Your task to perform on an android device: Open internet settings Image 0: 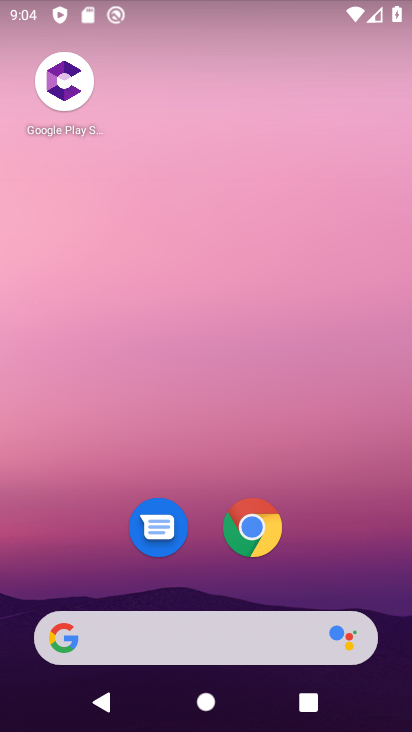
Step 0: drag from (338, 542) to (276, 9)
Your task to perform on an android device: Open internet settings Image 1: 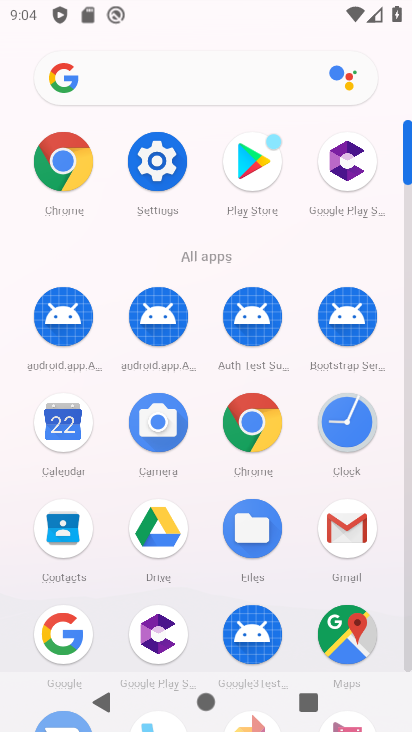
Step 1: click (155, 165)
Your task to perform on an android device: Open internet settings Image 2: 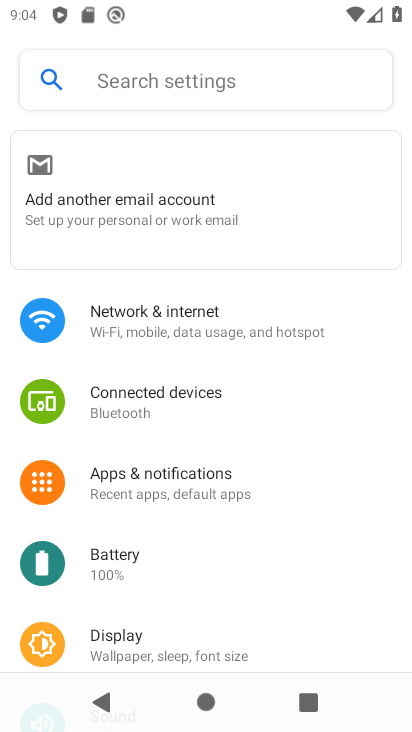
Step 2: click (154, 310)
Your task to perform on an android device: Open internet settings Image 3: 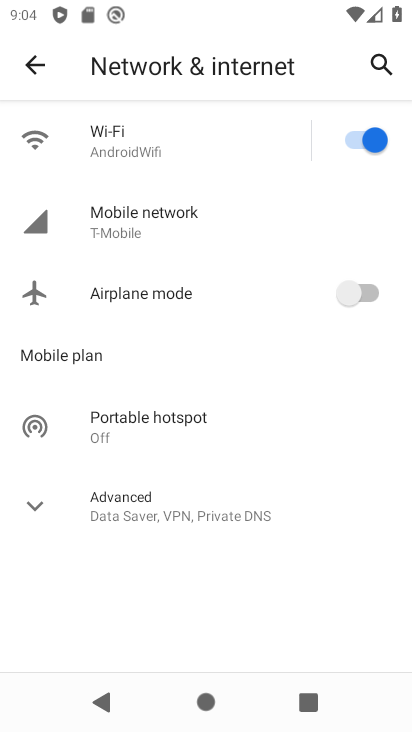
Step 3: click (131, 210)
Your task to perform on an android device: Open internet settings Image 4: 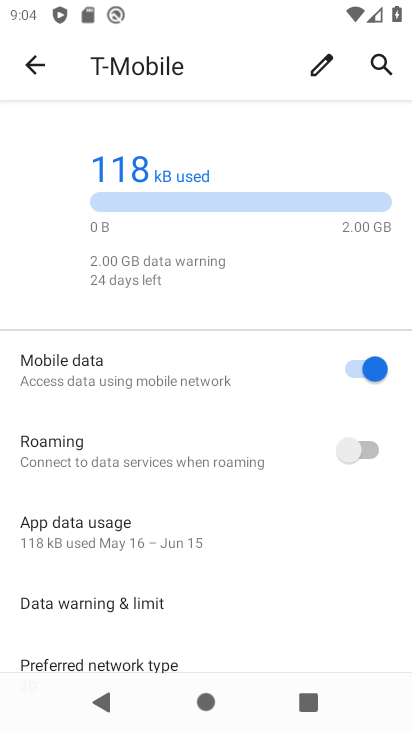
Step 4: task complete